Your task to perform on an android device: toggle pop-ups in chrome Image 0: 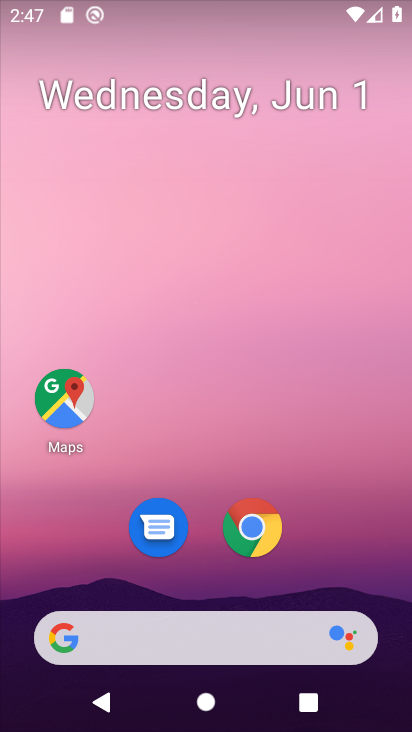
Step 0: click (256, 539)
Your task to perform on an android device: toggle pop-ups in chrome Image 1: 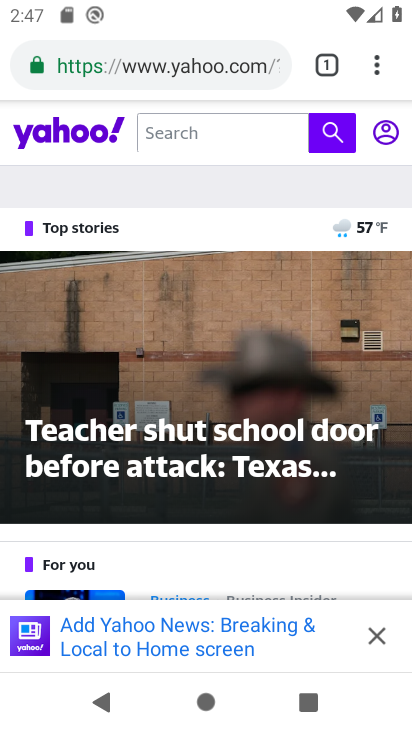
Step 1: click (388, 48)
Your task to perform on an android device: toggle pop-ups in chrome Image 2: 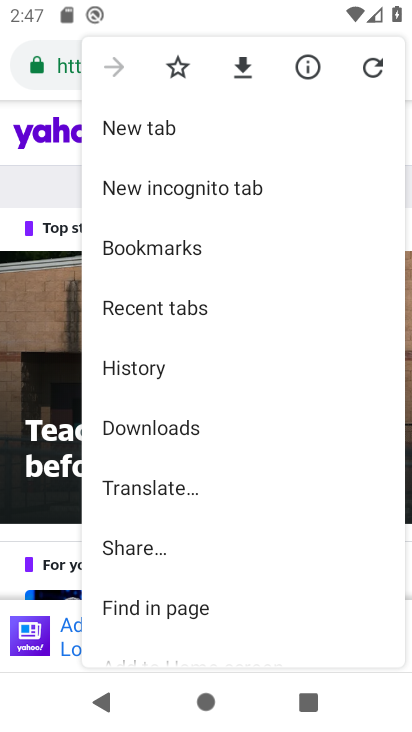
Step 2: drag from (158, 563) to (224, 181)
Your task to perform on an android device: toggle pop-ups in chrome Image 3: 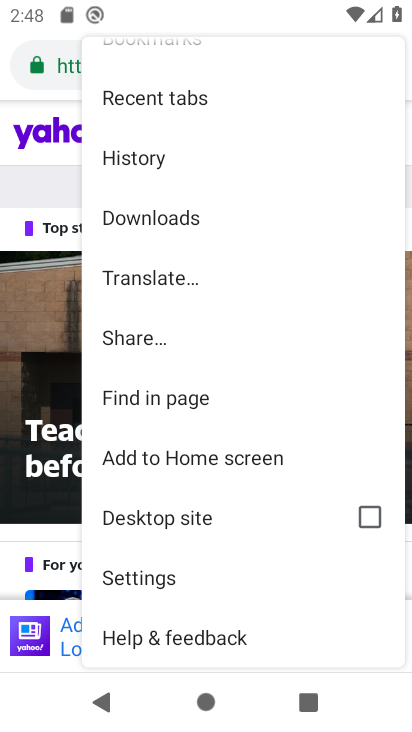
Step 3: click (171, 582)
Your task to perform on an android device: toggle pop-ups in chrome Image 4: 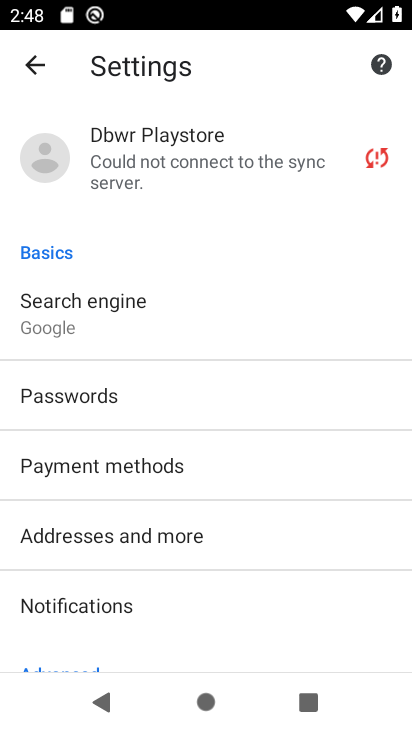
Step 4: drag from (172, 583) to (234, 126)
Your task to perform on an android device: toggle pop-ups in chrome Image 5: 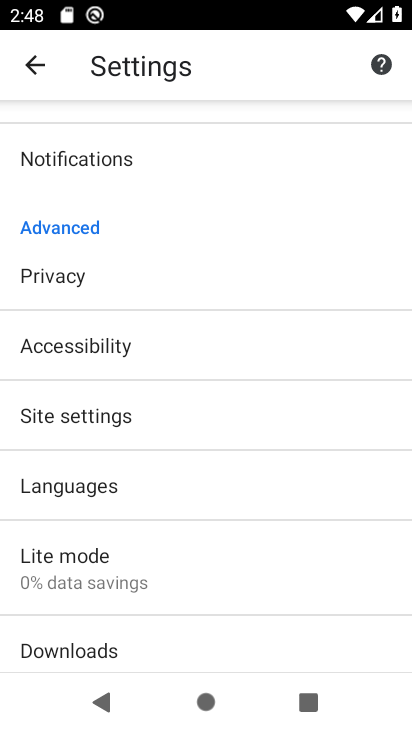
Step 5: click (94, 415)
Your task to perform on an android device: toggle pop-ups in chrome Image 6: 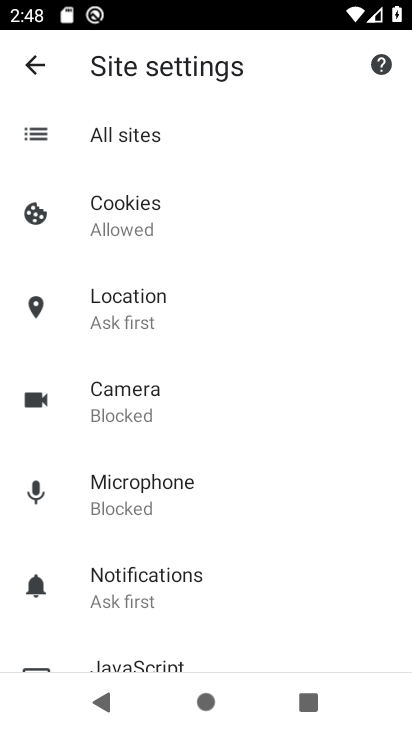
Step 6: drag from (203, 548) to (220, 235)
Your task to perform on an android device: toggle pop-ups in chrome Image 7: 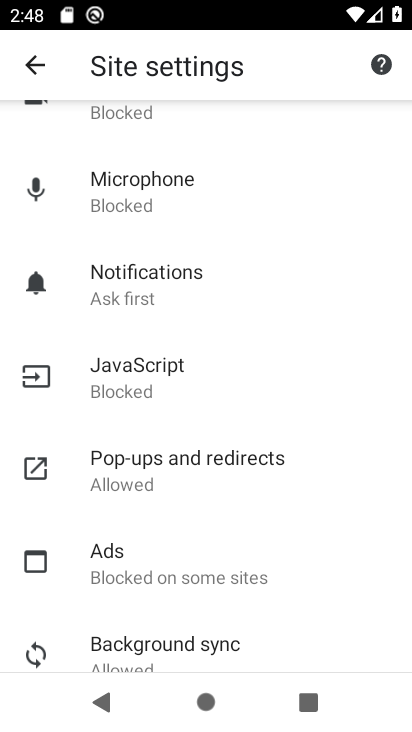
Step 7: click (164, 488)
Your task to perform on an android device: toggle pop-ups in chrome Image 8: 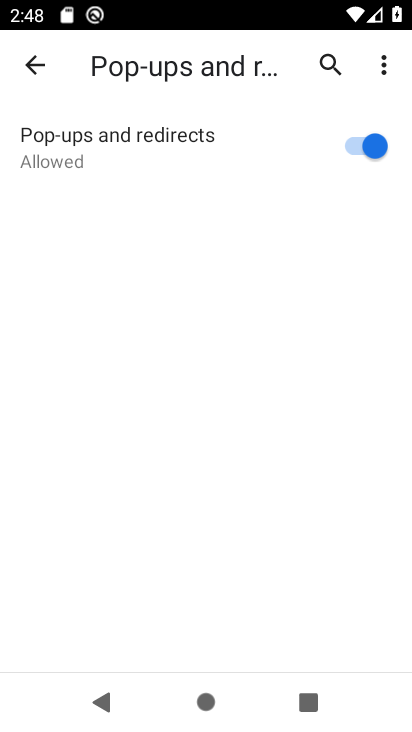
Step 8: click (344, 139)
Your task to perform on an android device: toggle pop-ups in chrome Image 9: 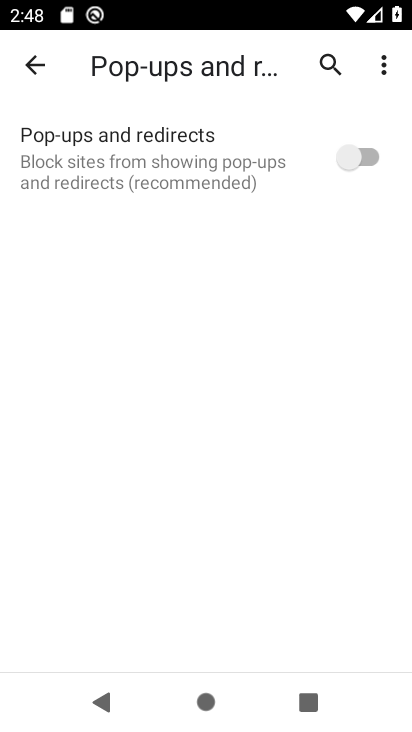
Step 9: task complete